Your task to perform on an android device: change timer sound Image 0: 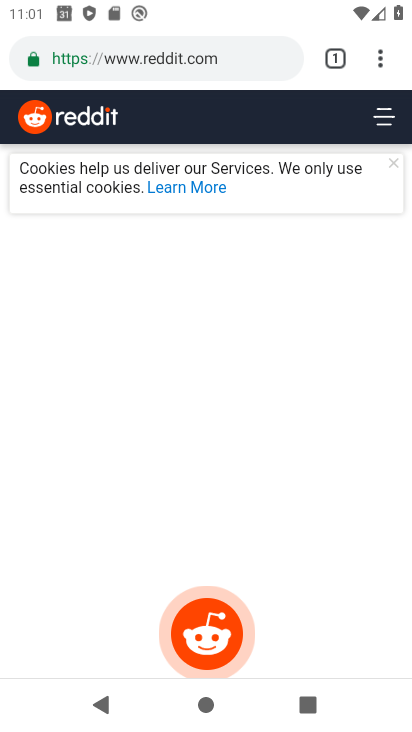
Step 0: press home button
Your task to perform on an android device: change timer sound Image 1: 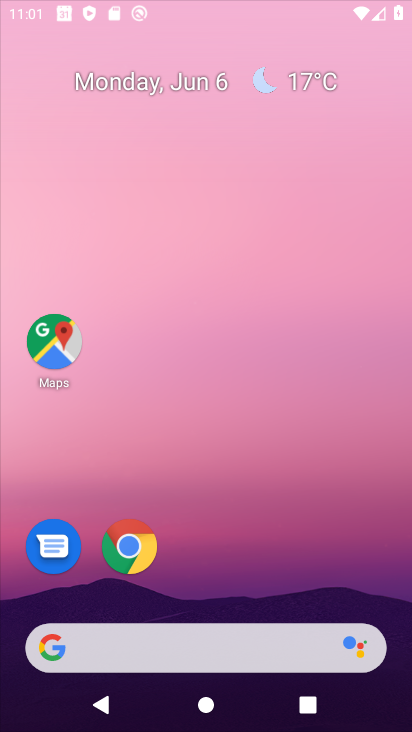
Step 1: press home button
Your task to perform on an android device: change timer sound Image 2: 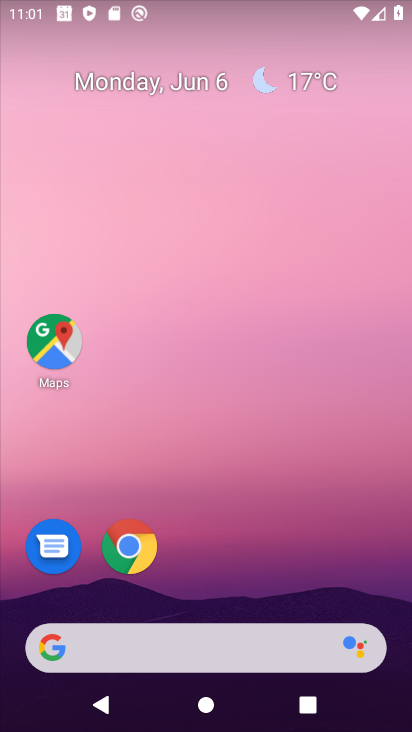
Step 2: drag from (208, 561) to (209, 102)
Your task to perform on an android device: change timer sound Image 3: 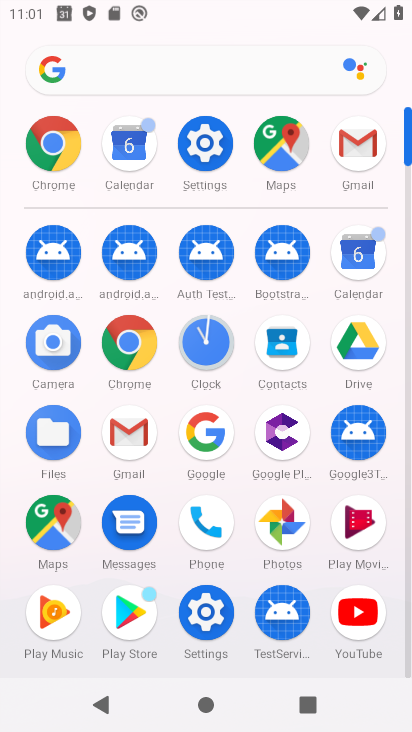
Step 3: click (207, 141)
Your task to perform on an android device: change timer sound Image 4: 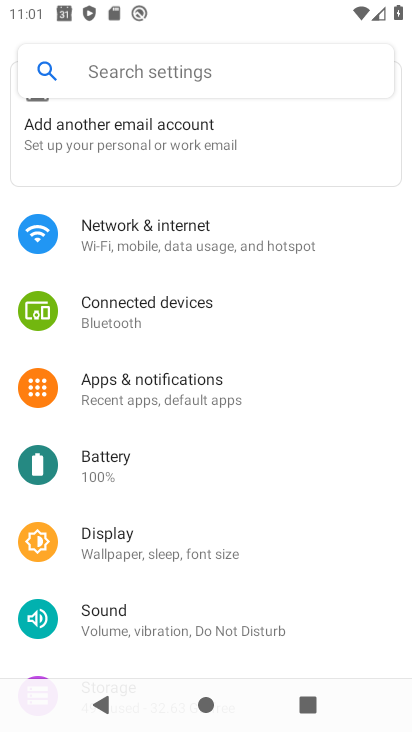
Step 4: click (129, 608)
Your task to perform on an android device: change timer sound Image 5: 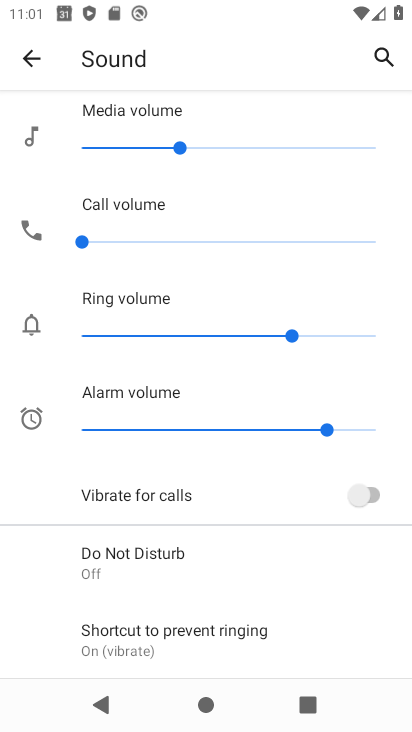
Step 5: press home button
Your task to perform on an android device: change timer sound Image 6: 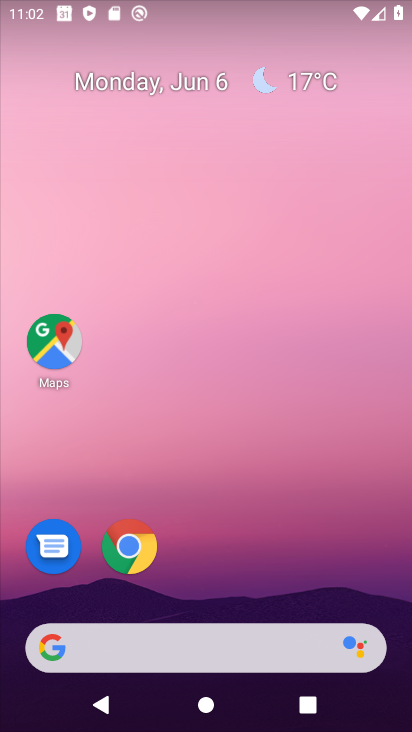
Step 6: drag from (261, 544) to (256, 79)
Your task to perform on an android device: change timer sound Image 7: 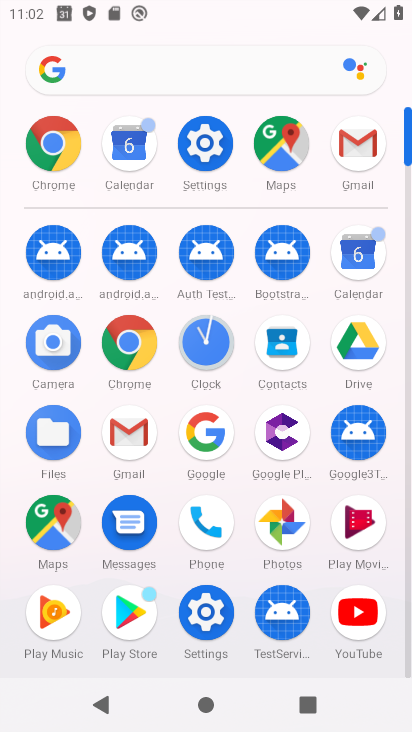
Step 7: click (218, 333)
Your task to perform on an android device: change timer sound Image 8: 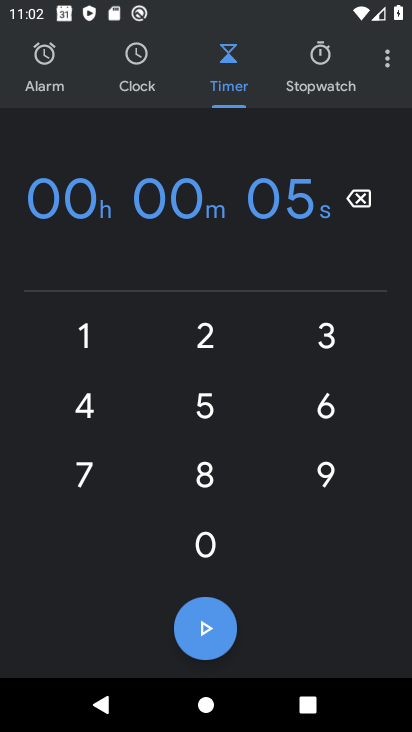
Step 8: click (380, 54)
Your task to perform on an android device: change timer sound Image 9: 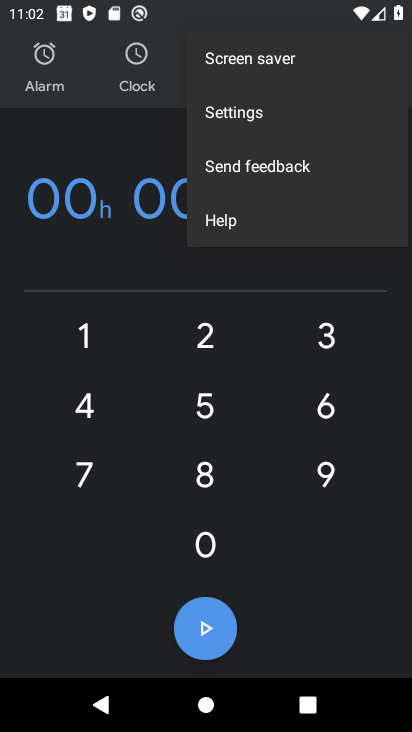
Step 9: click (263, 125)
Your task to perform on an android device: change timer sound Image 10: 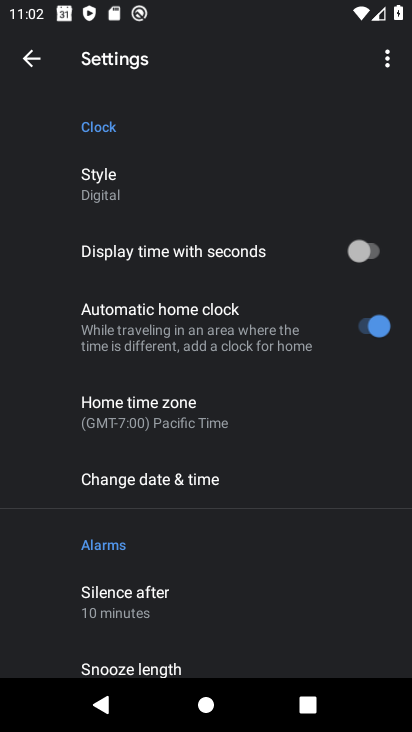
Step 10: drag from (258, 644) to (290, 194)
Your task to perform on an android device: change timer sound Image 11: 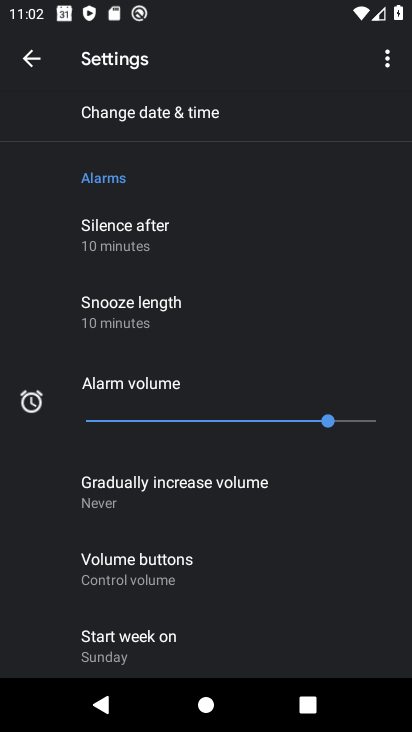
Step 11: drag from (248, 580) to (301, 169)
Your task to perform on an android device: change timer sound Image 12: 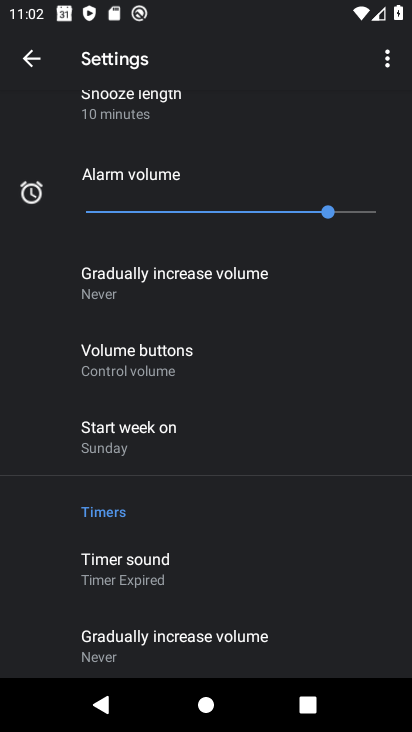
Step 12: click (151, 570)
Your task to perform on an android device: change timer sound Image 13: 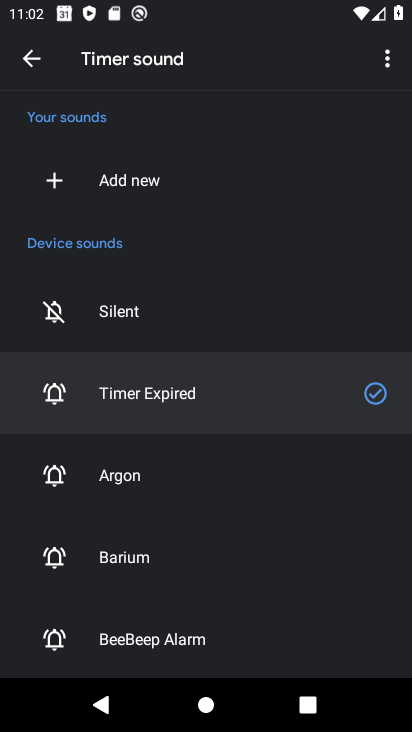
Step 13: click (135, 494)
Your task to perform on an android device: change timer sound Image 14: 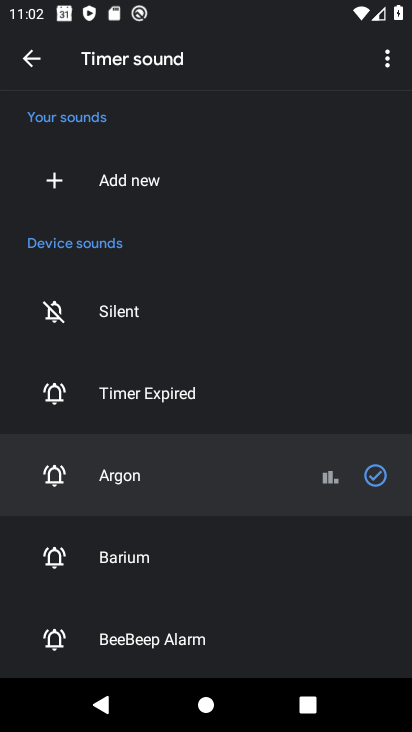
Step 14: task complete